Your task to perform on an android device: remove spam from my inbox in the gmail app Image 0: 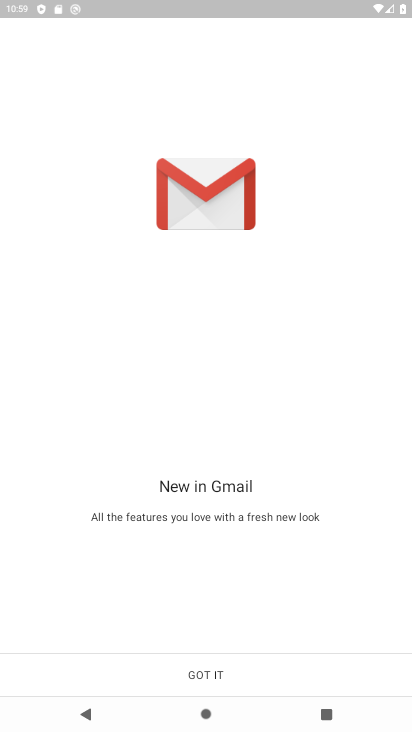
Step 0: click (226, 673)
Your task to perform on an android device: remove spam from my inbox in the gmail app Image 1: 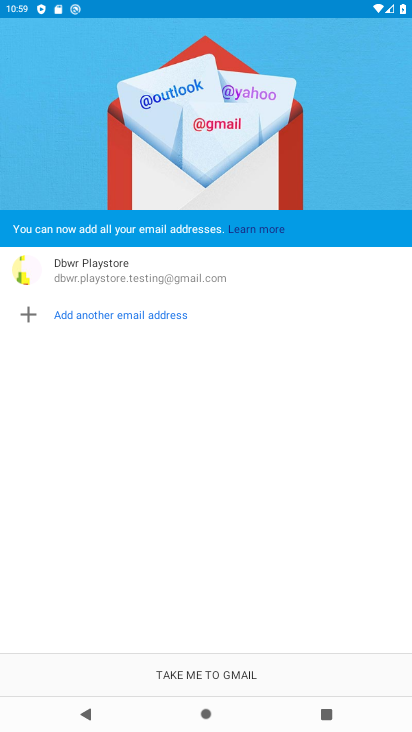
Step 1: click (226, 673)
Your task to perform on an android device: remove spam from my inbox in the gmail app Image 2: 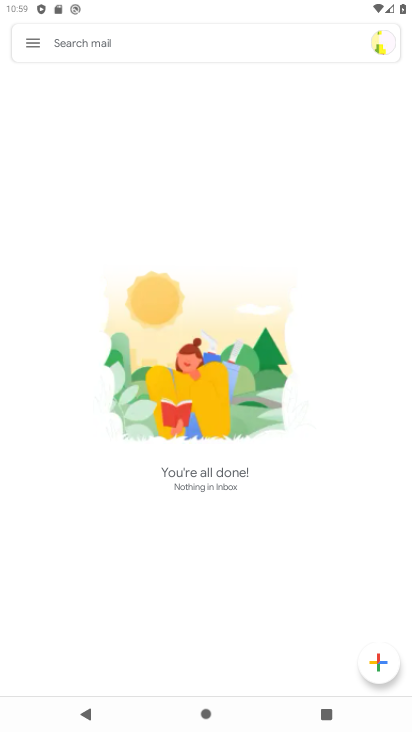
Step 2: click (39, 35)
Your task to perform on an android device: remove spam from my inbox in the gmail app Image 3: 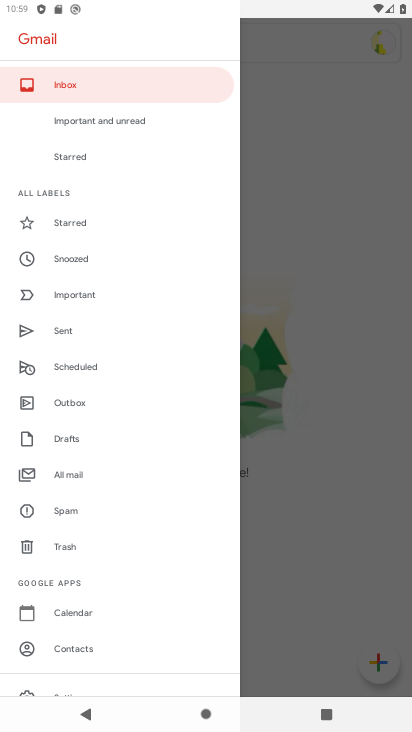
Step 3: click (66, 515)
Your task to perform on an android device: remove spam from my inbox in the gmail app Image 4: 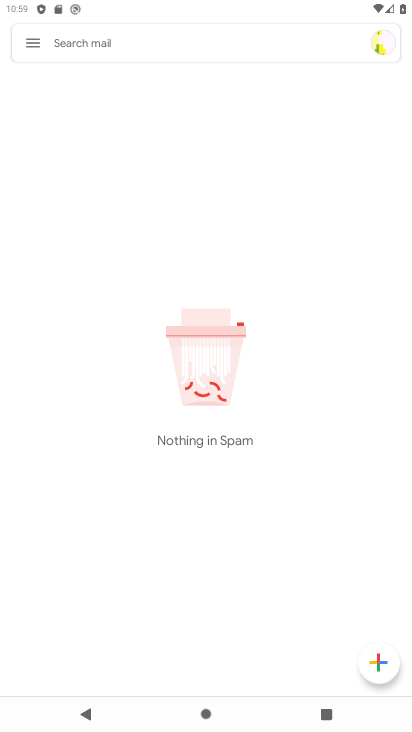
Step 4: task complete